Your task to perform on an android device: find which apps use the phone's location Image 0: 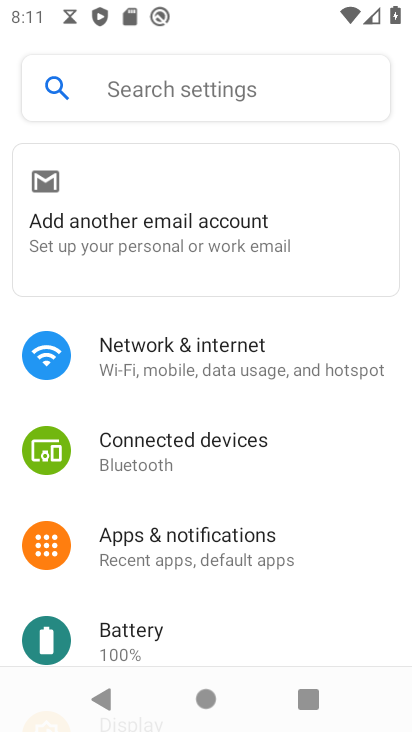
Step 0: drag from (184, 632) to (188, 270)
Your task to perform on an android device: find which apps use the phone's location Image 1: 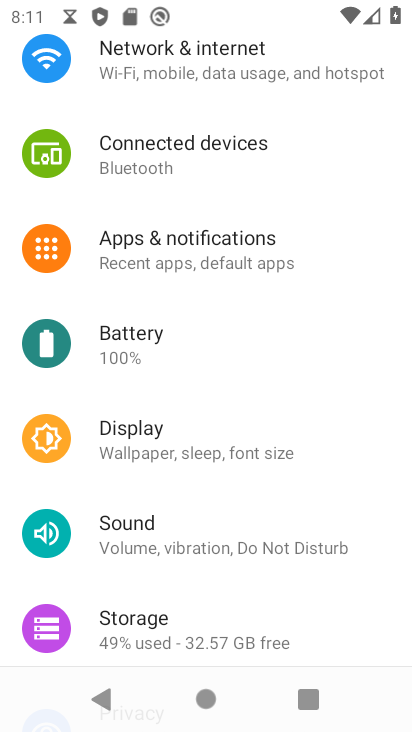
Step 1: drag from (196, 628) to (190, 327)
Your task to perform on an android device: find which apps use the phone's location Image 2: 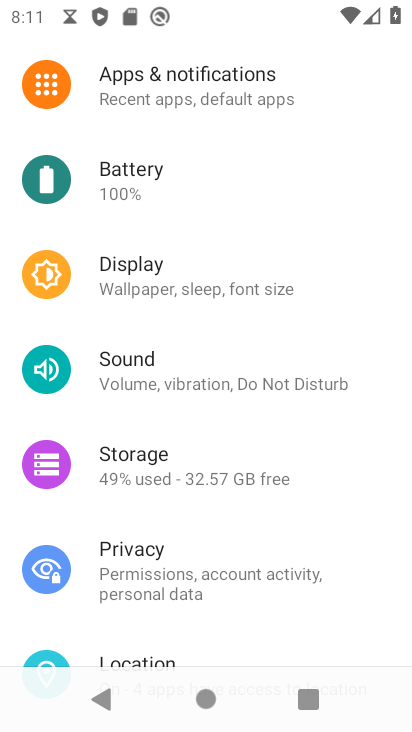
Step 2: click (146, 656)
Your task to perform on an android device: find which apps use the phone's location Image 3: 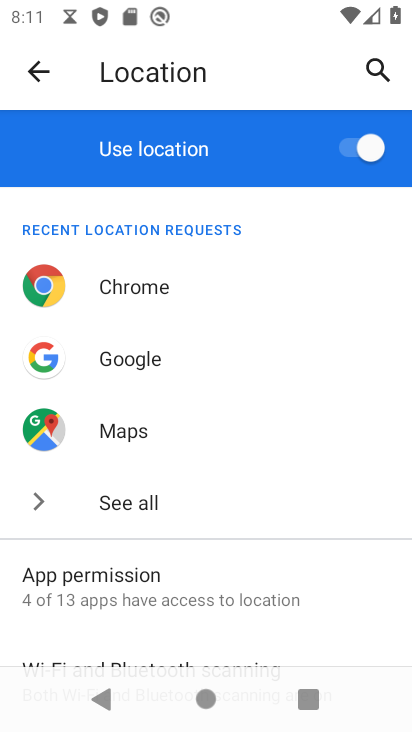
Step 3: click (174, 603)
Your task to perform on an android device: find which apps use the phone's location Image 4: 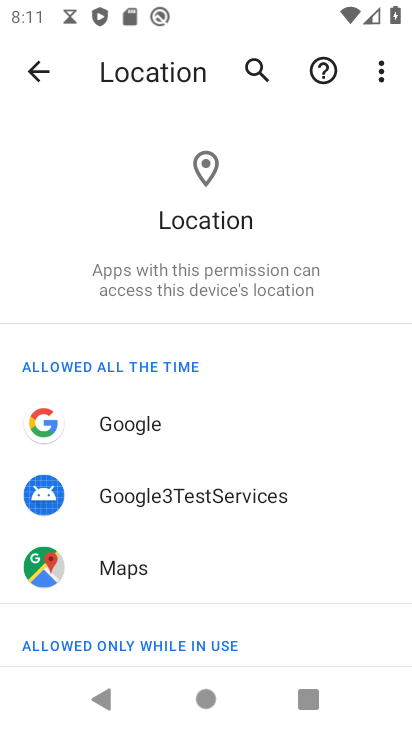
Step 4: task complete